Your task to perform on an android device: Search for the best rated drill on Lowes.com Image 0: 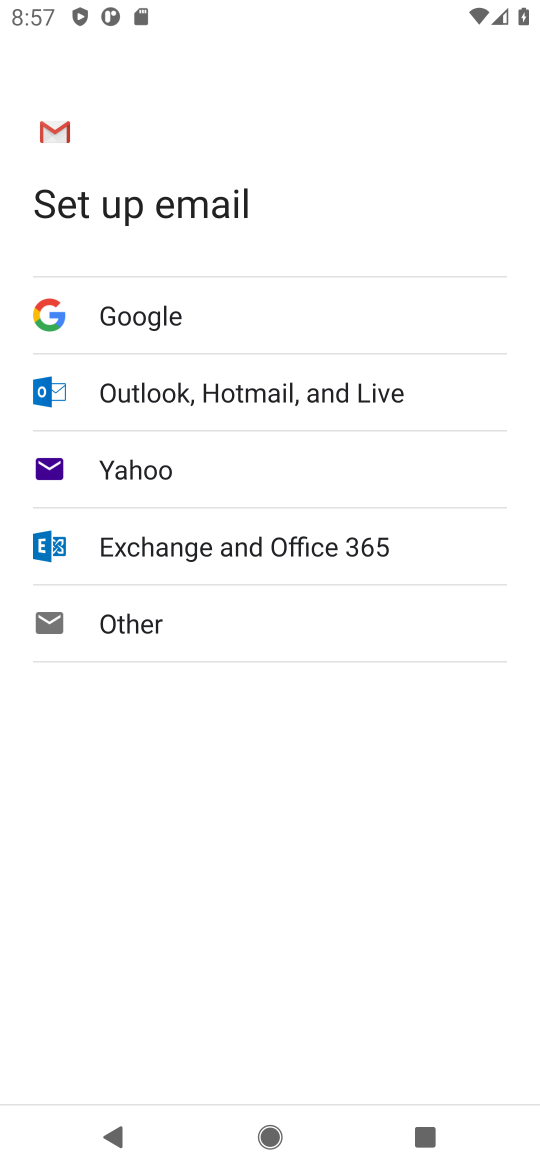
Step 0: press home button
Your task to perform on an android device: Search for the best rated drill on Lowes.com Image 1: 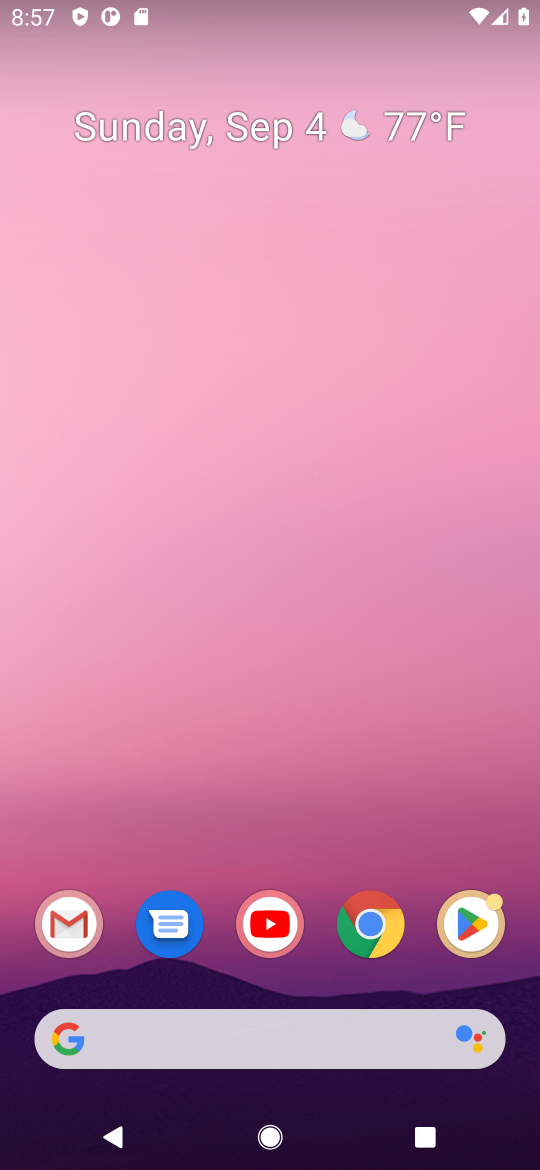
Step 1: drag from (309, 559) to (327, 300)
Your task to perform on an android device: Search for the best rated drill on Lowes.com Image 2: 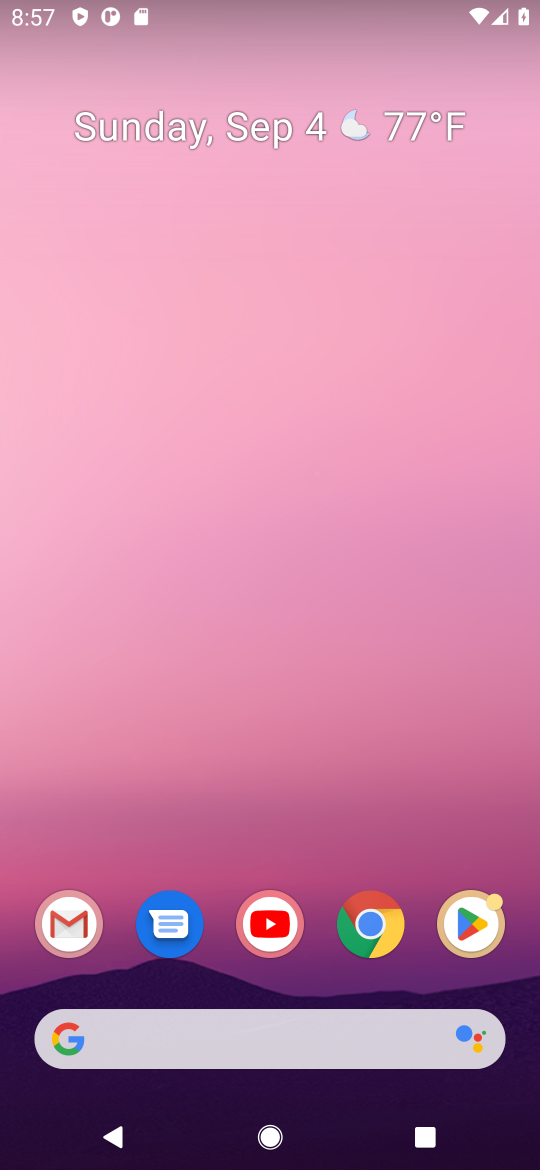
Step 2: drag from (310, 969) to (364, 208)
Your task to perform on an android device: Search for the best rated drill on Lowes.com Image 3: 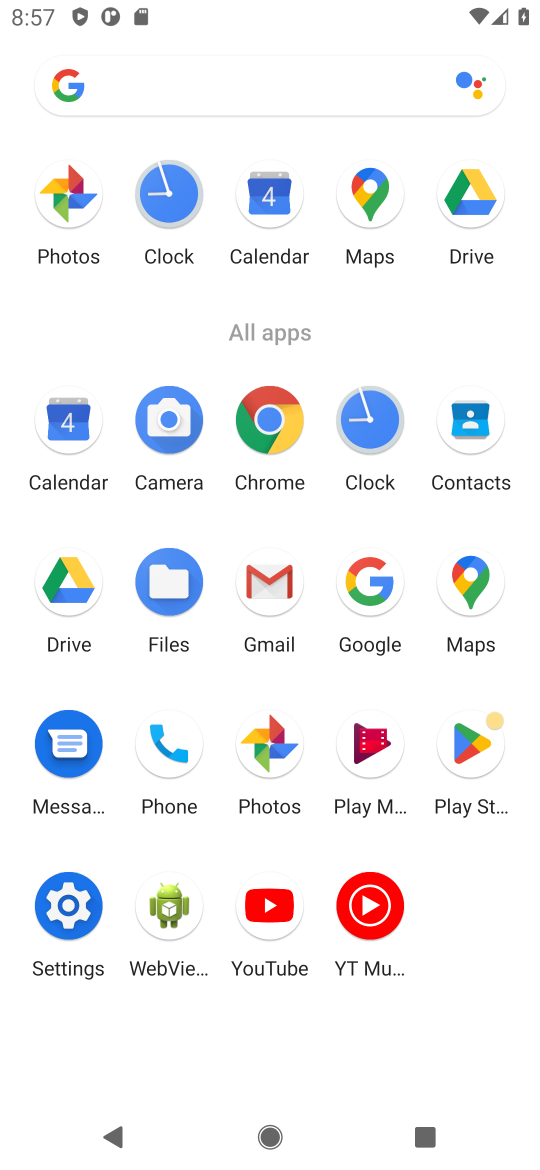
Step 3: click (356, 595)
Your task to perform on an android device: Search for the best rated drill on Lowes.com Image 4: 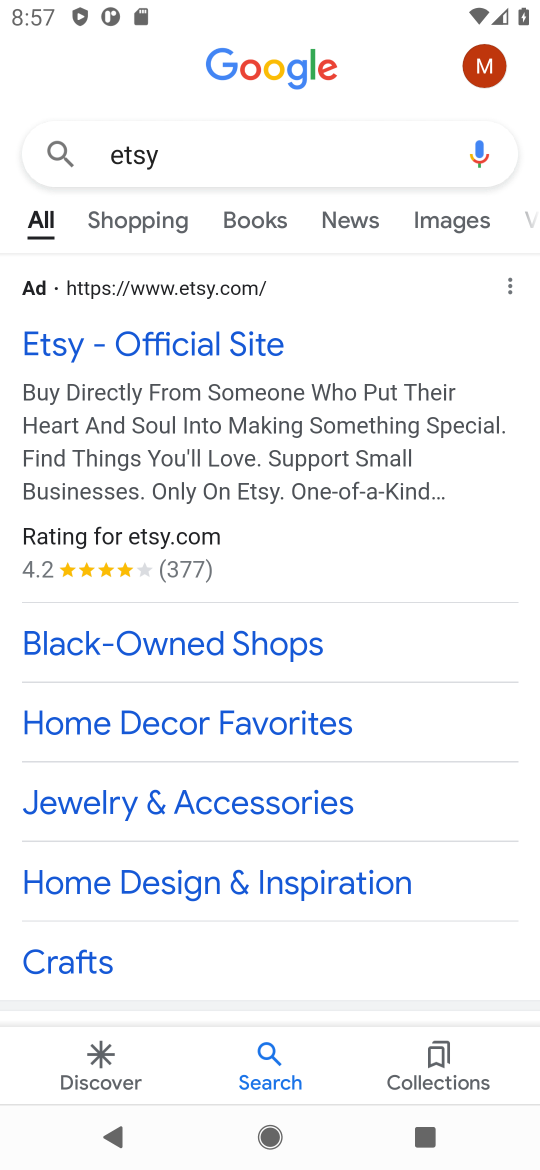
Step 4: click (225, 162)
Your task to perform on an android device: Search for the best rated drill on Lowes.com Image 5: 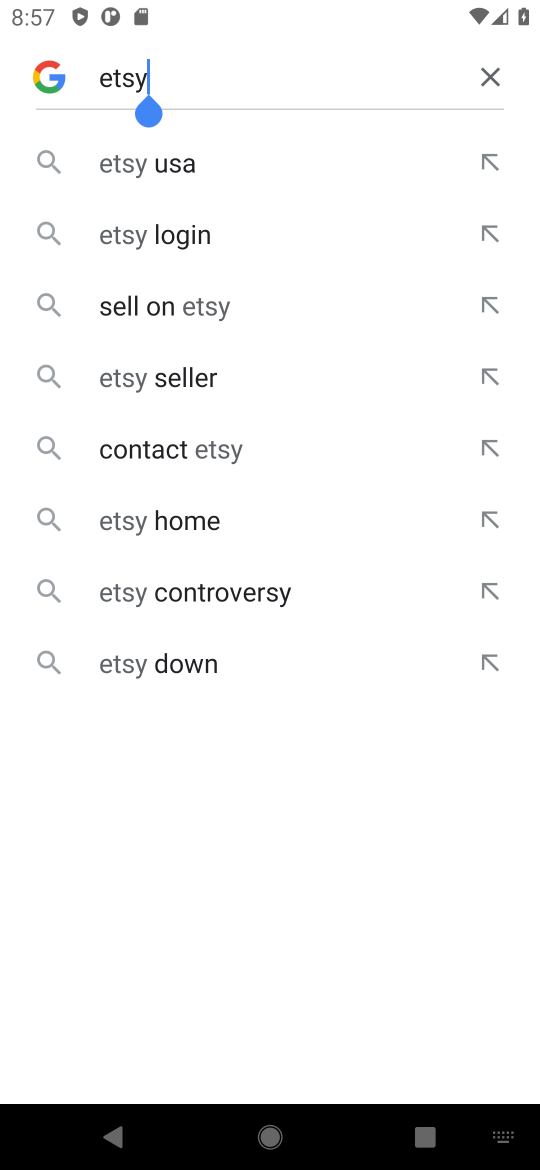
Step 5: click (483, 85)
Your task to perform on an android device: Search for the best rated drill on Lowes.com Image 6: 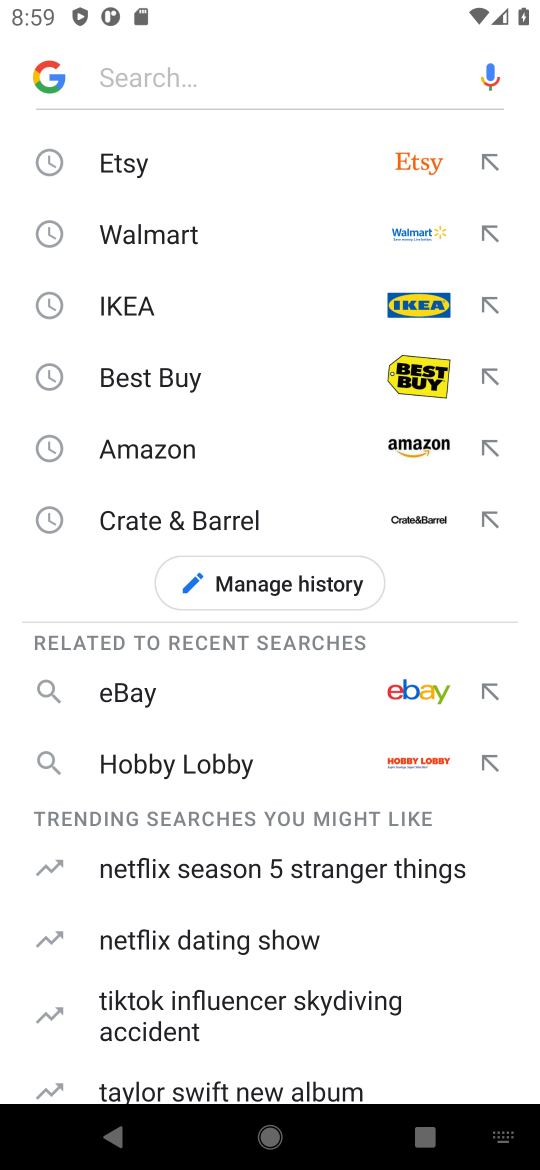
Step 6: type "Lowes.com"
Your task to perform on an android device: Search for the best rated drill on Lowes.com Image 7: 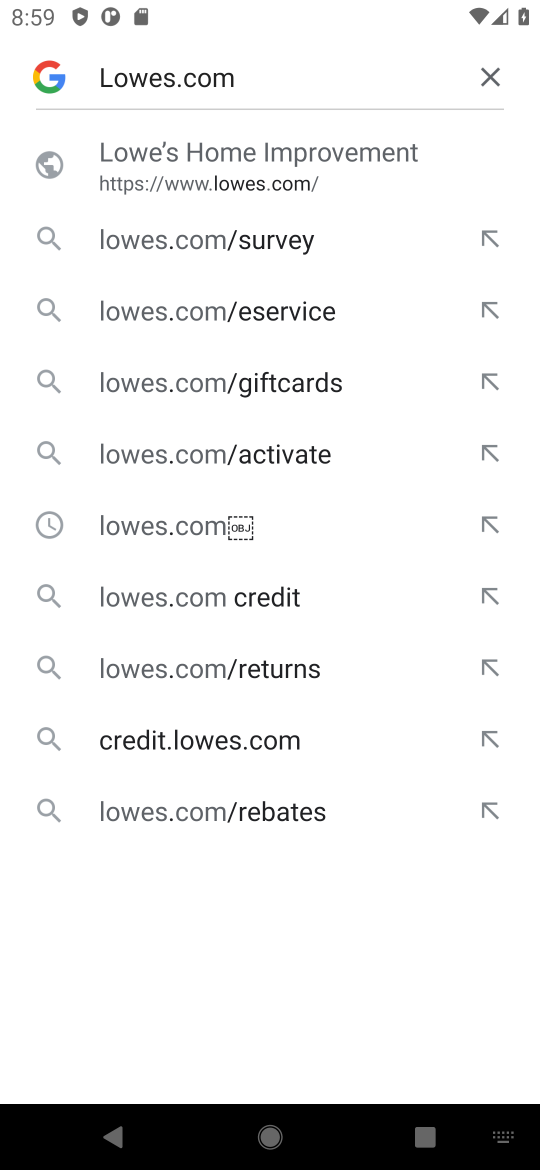
Step 7: click (134, 147)
Your task to perform on an android device: Search for the best rated drill on Lowes.com Image 8: 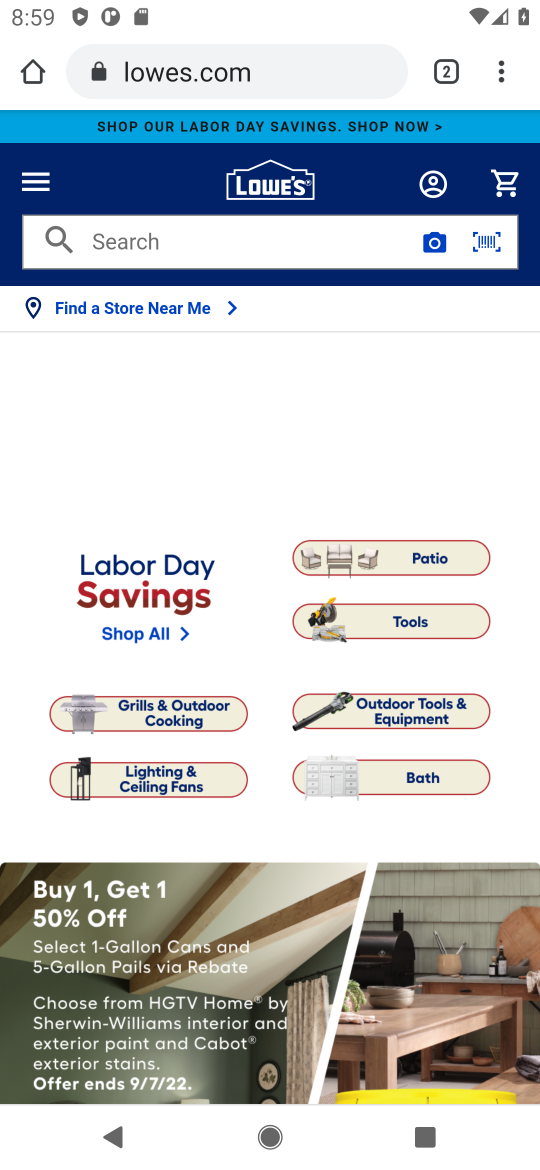
Step 8: click (246, 237)
Your task to perform on an android device: Search for the best rated drill on Lowes.com Image 9: 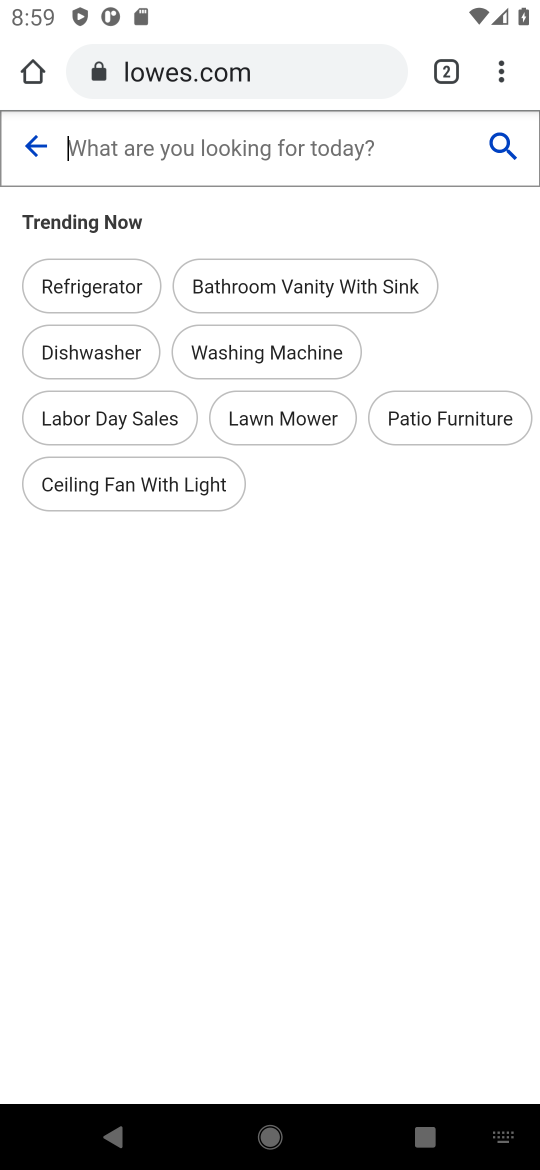
Step 9: type "best rated drill"
Your task to perform on an android device: Search for the best rated drill on Lowes.com Image 10: 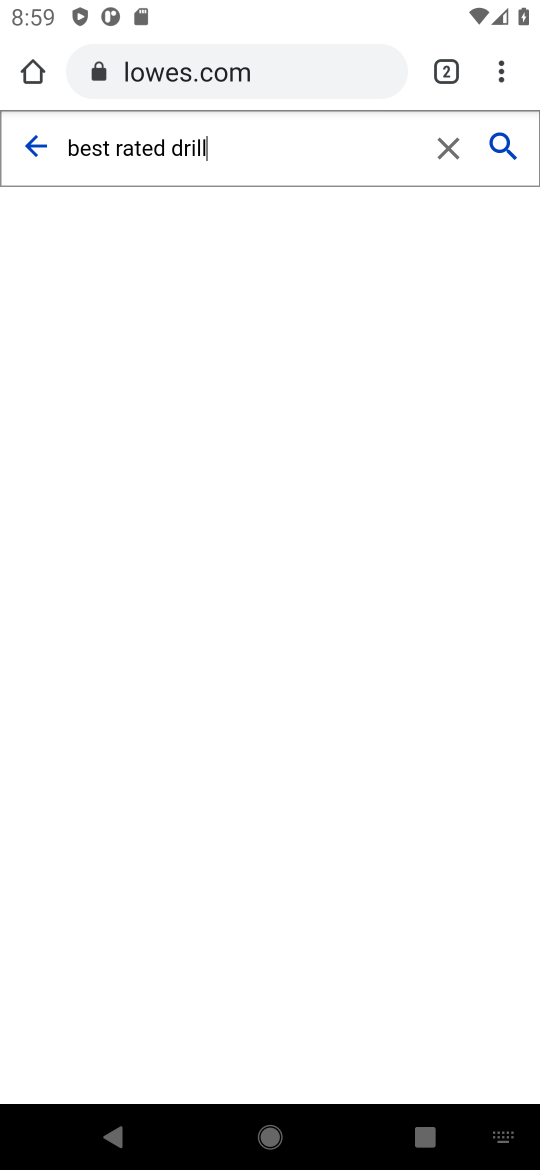
Step 10: click (508, 140)
Your task to perform on an android device: Search for the best rated drill on Lowes.com Image 11: 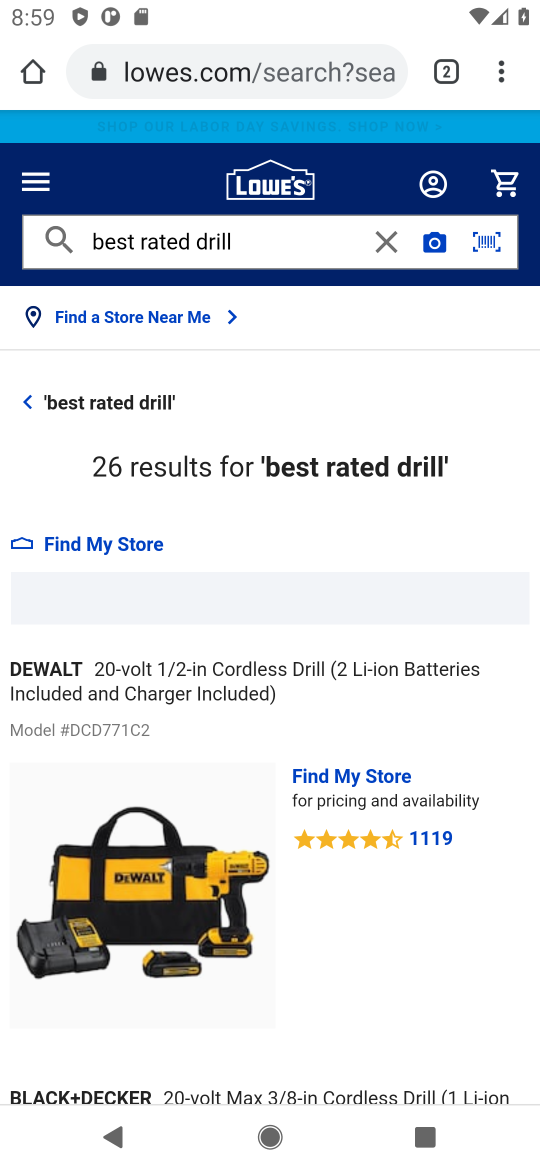
Step 11: task complete